Your task to perform on an android device: turn off priority inbox in the gmail app Image 0: 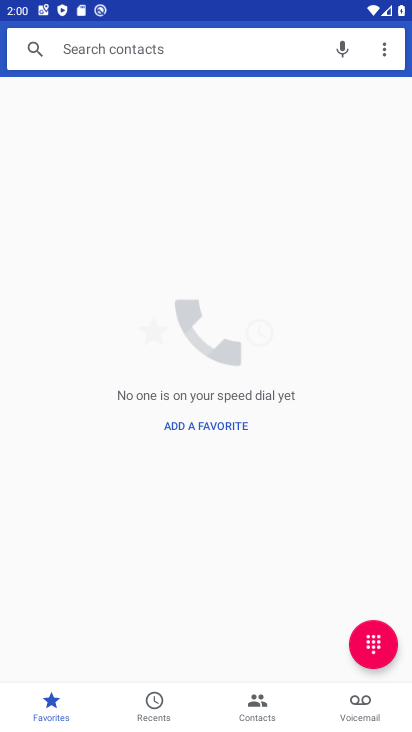
Step 0: press home button
Your task to perform on an android device: turn off priority inbox in the gmail app Image 1: 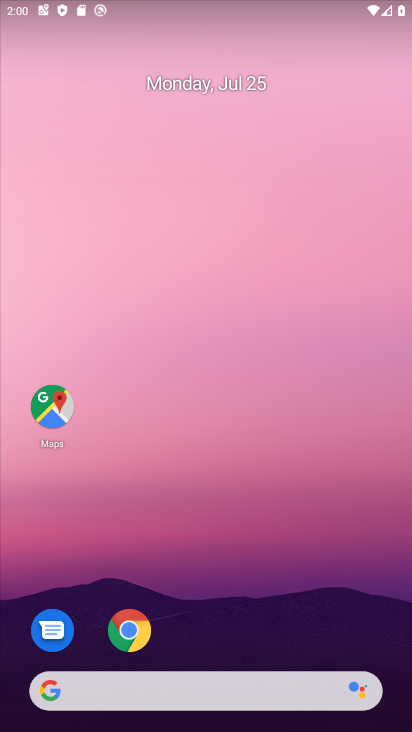
Step 1: drag from (228, 638) to (245, 67)
Your task to perform on an android device: turn off priority inbox in the gmail app Image 2: 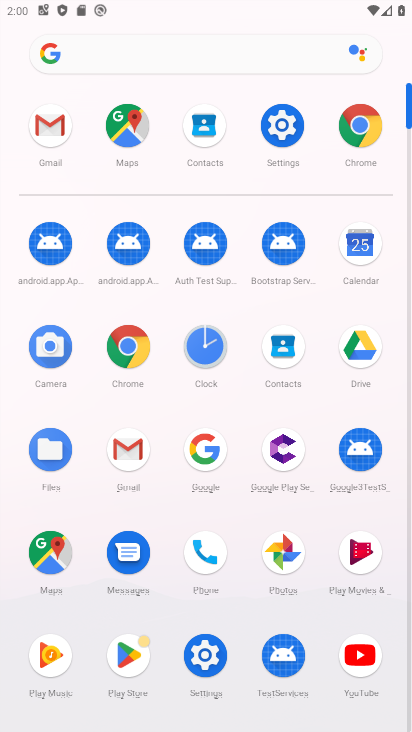
Step 2: click (32, 135)
Your task to perform on an android device: turn off priority inbox in the gmail app Image 3: 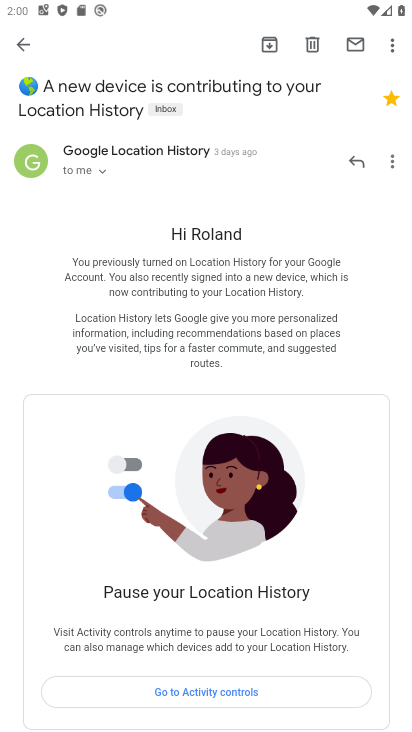
Step 3: click (401, 42)
Your task to perform on an android device: turn off priority inbox in the gmail app Image 4: 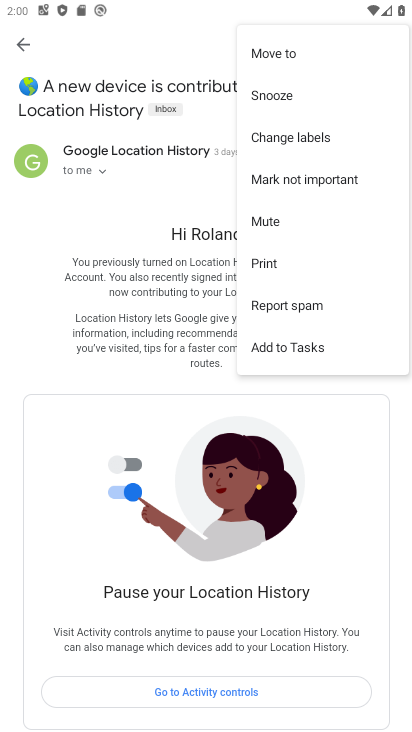
Step 4: task complete